Your task to perform on an android device: turn off notifications settings in the gmail app Image 0: 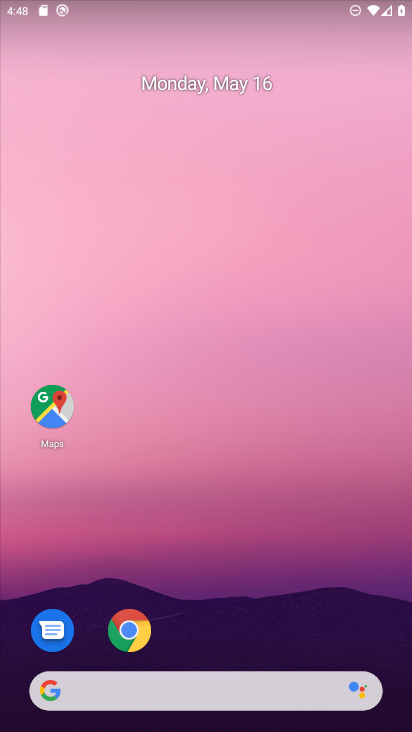
Step 0: press home button
Your task to perform on an android device: turn off notifications settings in the gmail app Image 1: 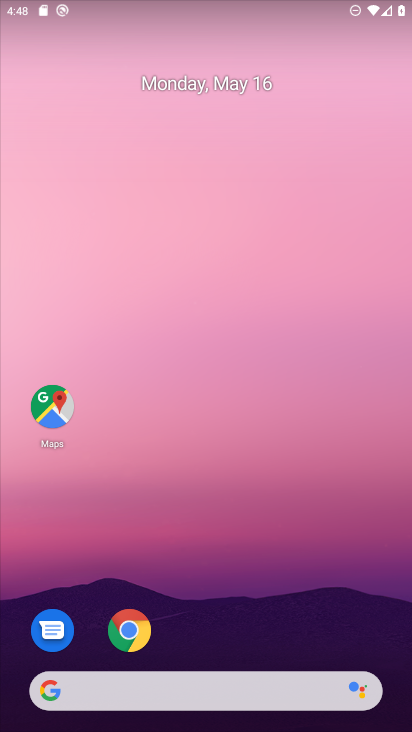
Step 1: drag from (315, 628) to (331, 0)
Your task to perform on an android device: turn off notifications settings in the gmail app Image 2: 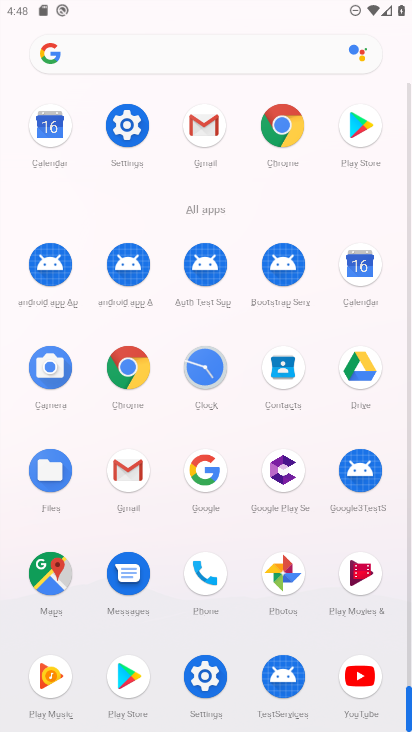
Step 2: click (215, 144)
Your task to perform on an android device: turn off notifications settings in the gmail app Image 3: 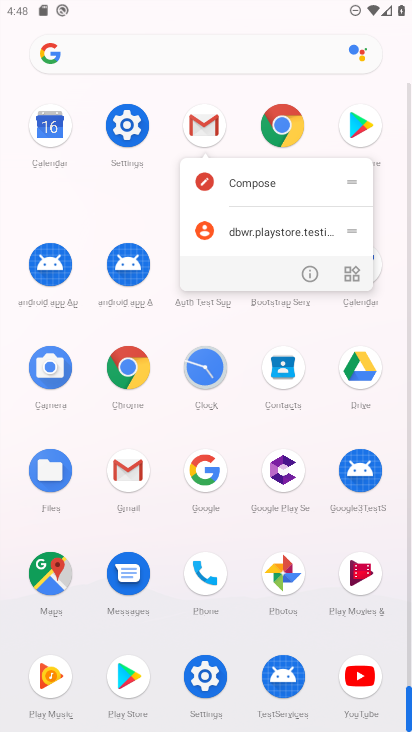
Step 3: click (318, 266)
Your task to perform on an android device: turn off notifications settings in the gmail app Image 4: 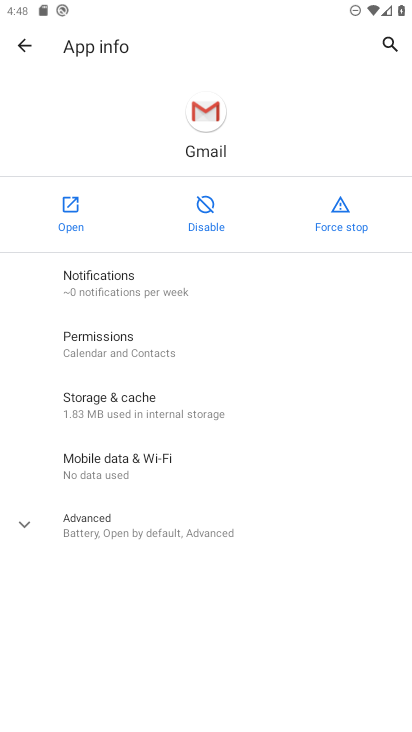
Step 4: click (177, 281)
Your task to perform on an android device: turn off notifications settings in the gmail app Image 5: 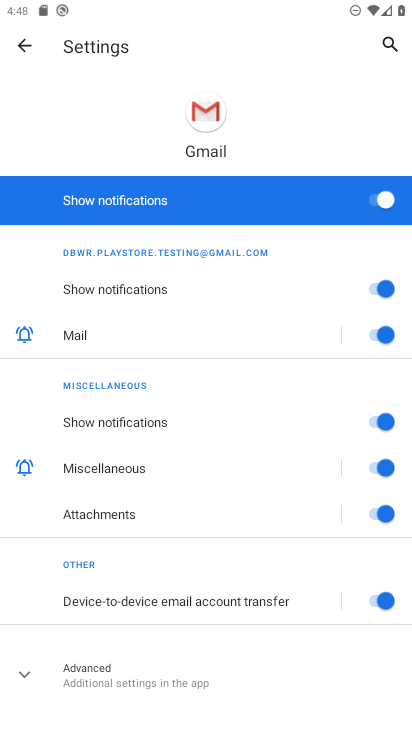
Step 5: click (375, 202)
Your task to perform on an android device: turn off notifications settings in the gmail app Image 6: 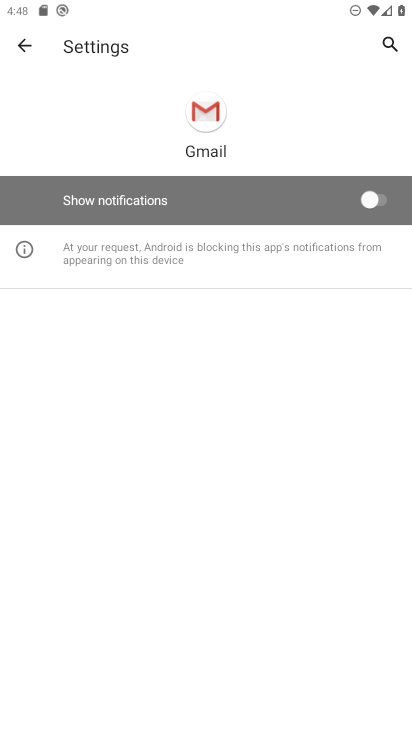
Step 6: task complete